Your task to perform on an android device: open wifi settings Image 0: 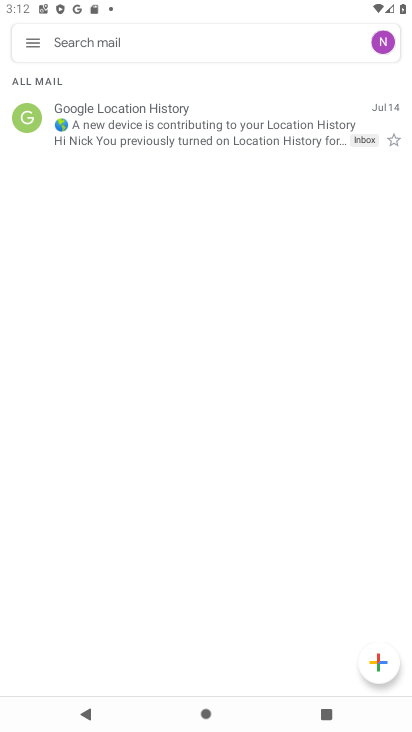
Step 0: press home button
Your task to perform on an android device: open wifi settings Image 1: 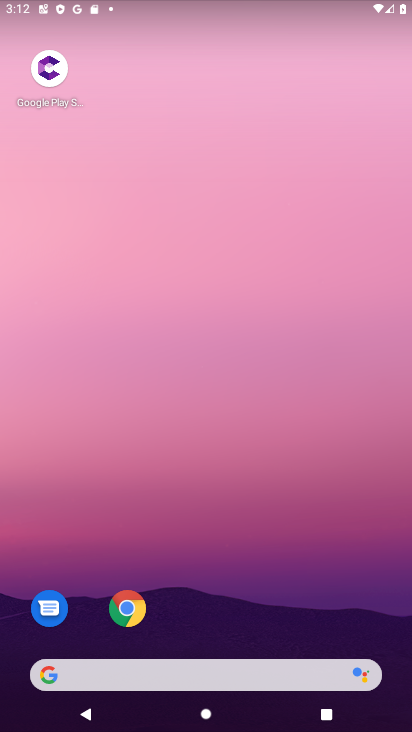
Step 1: drag from (277, 619) to (276, 2)
Your task to perform on an android device: open wifi settings Image 2: 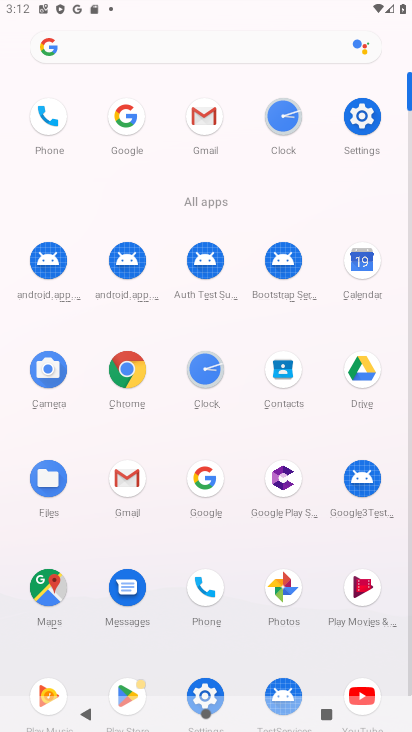
Step 2: click (364, 124)
Your task to perform on an android device: open wifi settings Image 3: 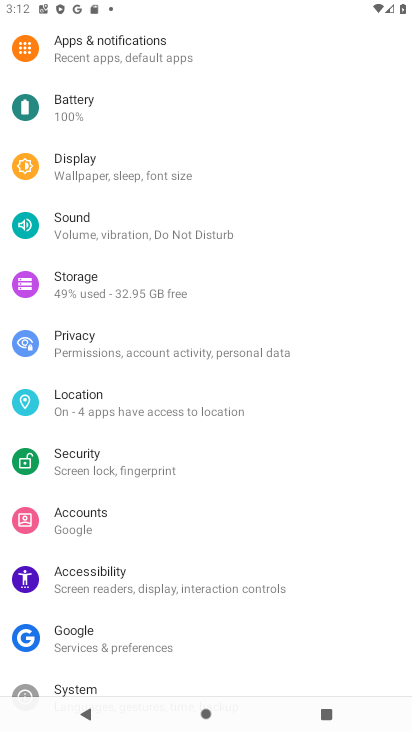
Step 3: drag from (228, 70) to (183, 517)
Your task to perform on an android device: open wifi settings Image 4: 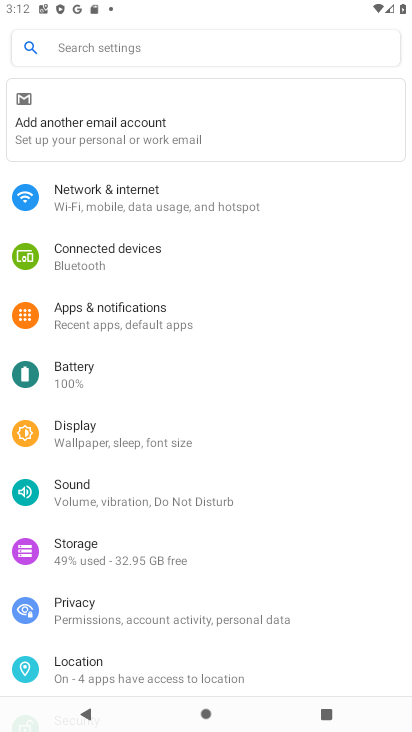
Step 4: click (189, 197)
Your task to perform on an android device: open wifi settings Image 5: 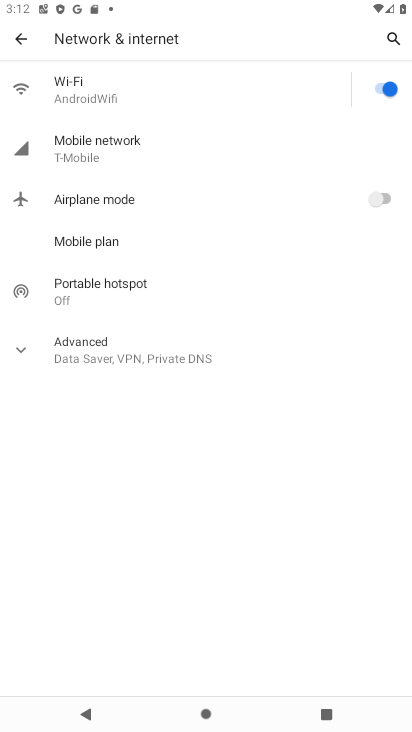
Step 5: click (260, 80)
Your task to perform on an android device: open wifi settings Image 6: 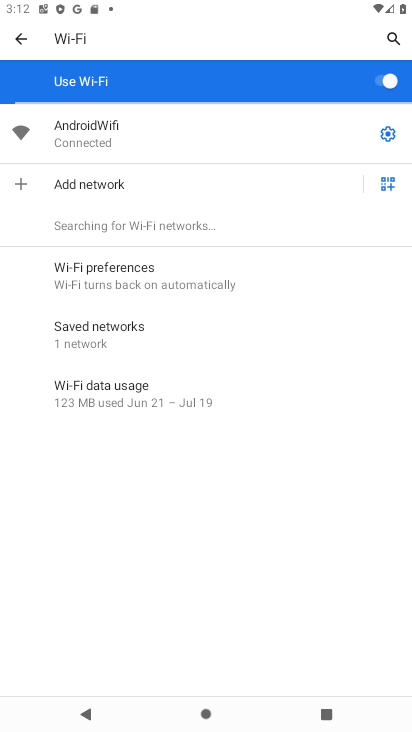
Step 6: task complete